Your task to perform on an android device: open app "WhatsApp Messenger" (install if not already installed) and enter user name: "cartons@outlook.com" and password: "approximated" Image 0: 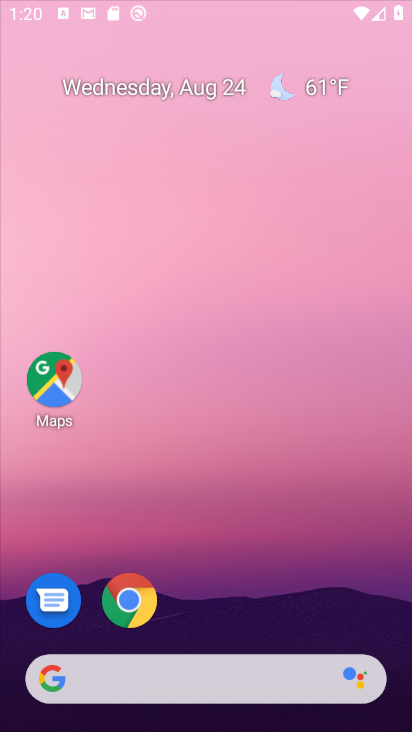
Step 0: click (303, 62)
Your task to perform on an android device: open app "WhatsApp Messenger" (install if not already installed) and enter user name: "cartons@outlook.com" and password: "approximated" Image 1: 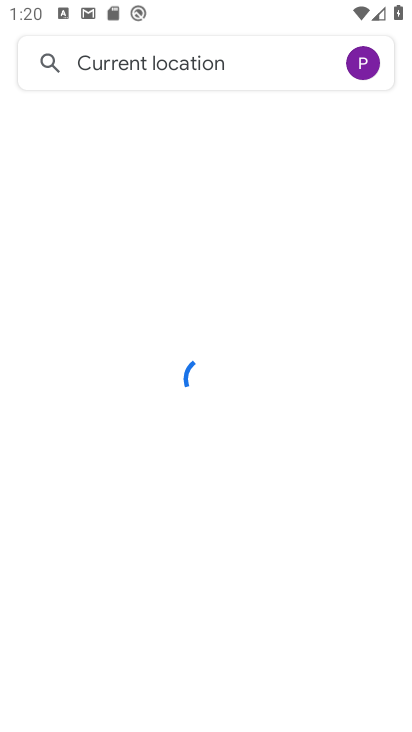
Step 1: press home button
Your task to perform on an android device: open app "WhatsApp Messenger" (install if not already installed) and enter user name: "cartons@outlook.com" and password: "approximated" Image 2: 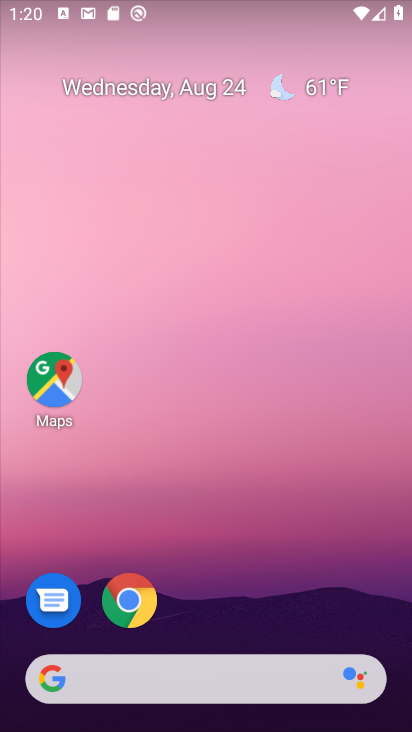
Step 2: drag from (277, 609) to (263, 109)
Your task to perform on an android device: open app "WhatsApp Messenger" (install if not already installed) and enter user name: "cartons@outlook.com" and password: "approximated" Image 3: 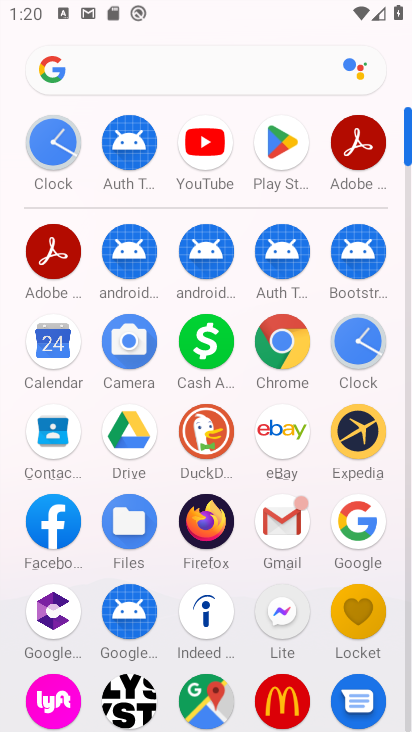
Step 3: click (253, 157)
Your task to perform on an android device: open app "WhatsApp Messenger" (install if not already installed) and enter user name: "cartons@outlook.com" and password: "approximated" Image 4: 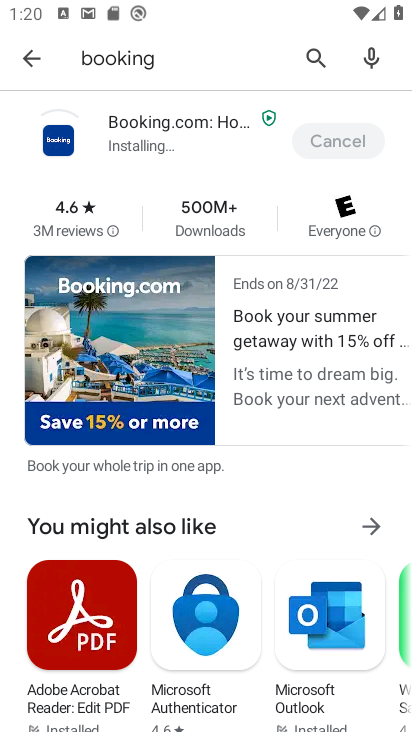
Step 4: click (335, 66)
Your task to perform on an android device: open app "WhatsApp Messenger" (install if not already installed) and enter user name: "cartons@outlook.com" and password: "approximated" Image 5: 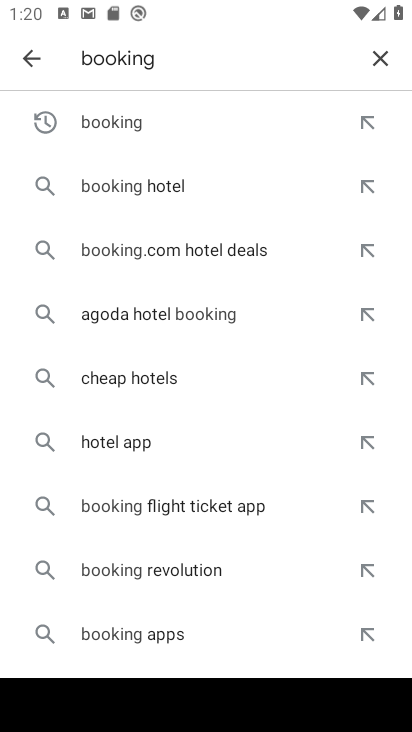
Step 5: click (368, 65)
Your task to perform on an android device: open app "WhatsApp Messenger" (install if not already installed) and enter user name: "cartons@outlook.com" and password: "approximated" Image 6: 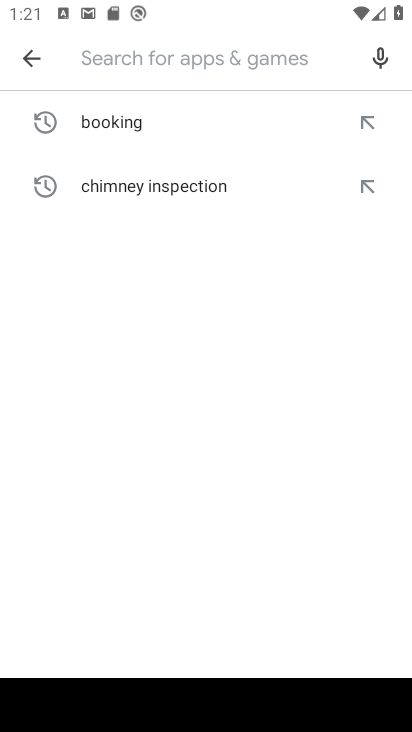
Step 6: type "whatapp"
Your task to perform on an android device: open app "WhatsApp Messenger" (install if not already installed) and enter user name: "cartons@outlook.com" and password: "approximated" Image 7: 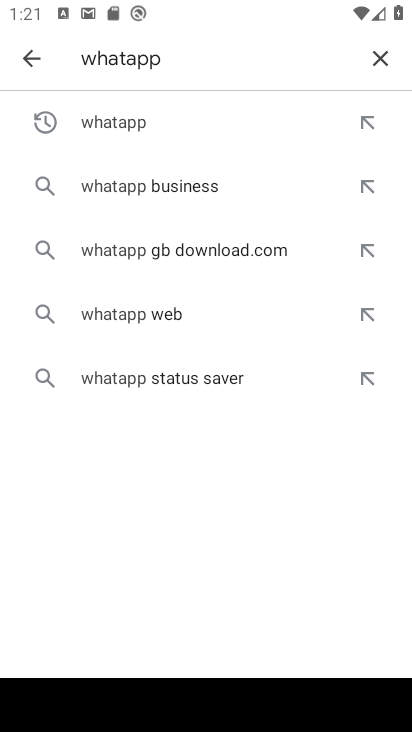
Step 7: click (174, 143)
Your task to perform on an android device: open app "WhatsApp Messenger" (install if not already installed) and enter user name: "cartons@outlook.com" and password: "approximated" Image 8: 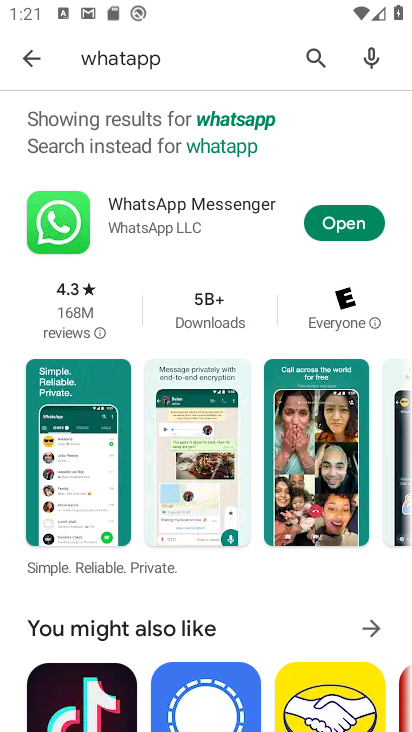
Step 8: click (317, 217)
Your task to perform on an android device: open app "WhatsApp Messenger" (install if not already installed) and enter user name: "cartons@outlook.com" and password: "approximated" Image 9: 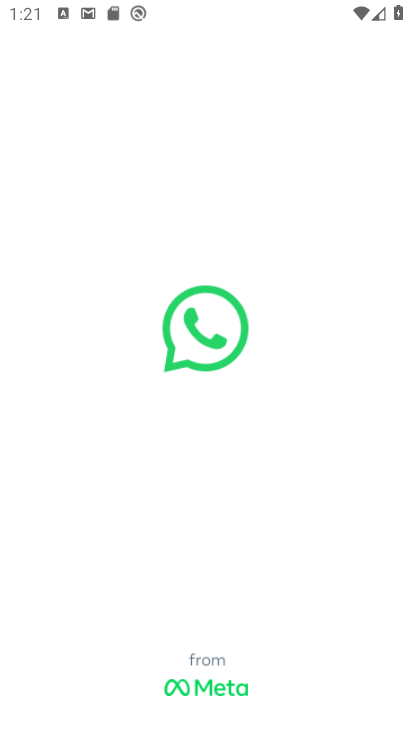
Step 9: task complete